Your task to perform on an android device: open sync settings in chrome Image 0: 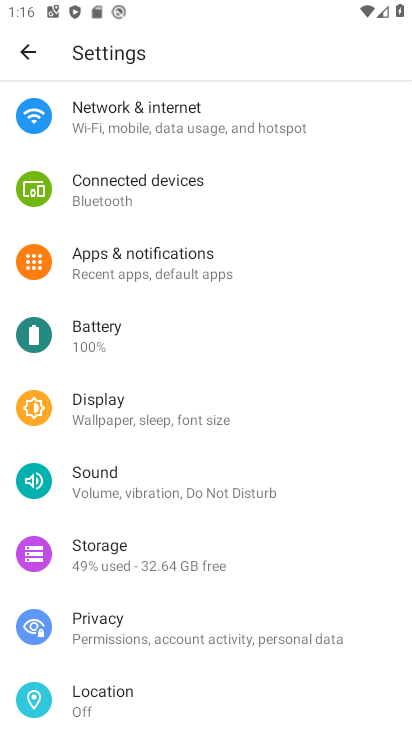
Step 0: press back button
Your task to perform on an android device: open sync settings in chrome Image 1: 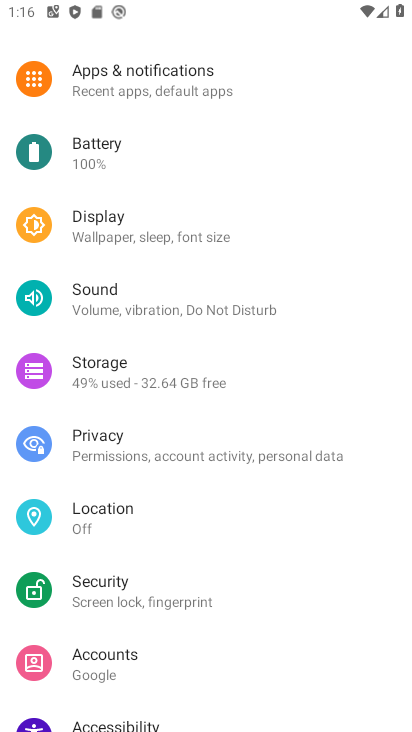
Step 1: press back button
Your task to perform on an android device: open sync settings in chrome Image 2: 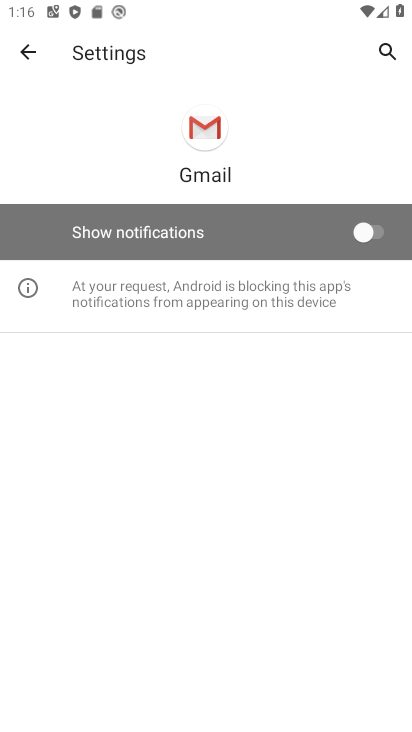
Step 2: press back button
Your task to perform on an android device: open sync settings in chrome Image 3: 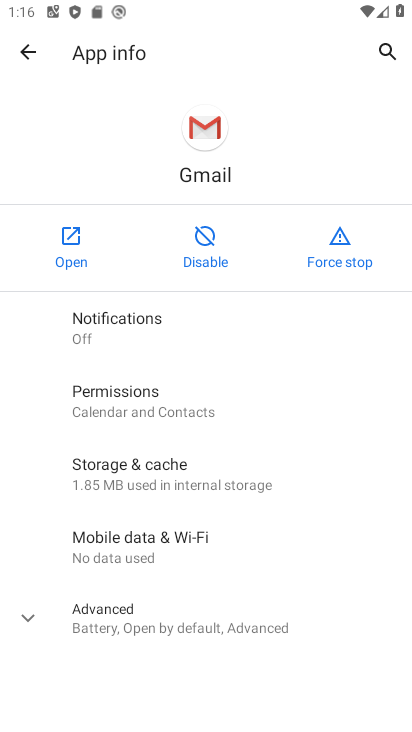
Step 3: press home button
Your task to perform on an android device: open sync settings in chrome Image 4: 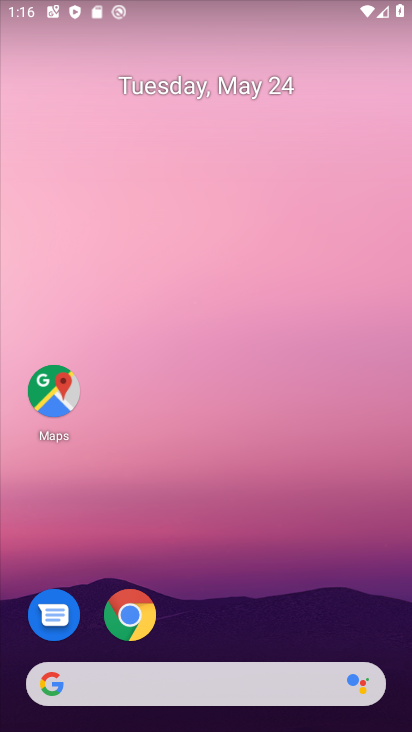
Step 4: click (143, 591)
Your task to perform on an android device: open sync settings in chrome Image 5: 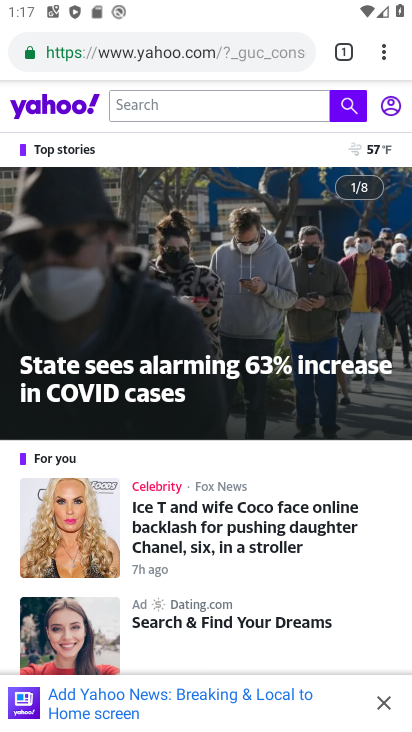
Step 5: drag from (384, 45) to (201, 629)
Your task to perform on an android device: open sync settings in chrome Image 6: 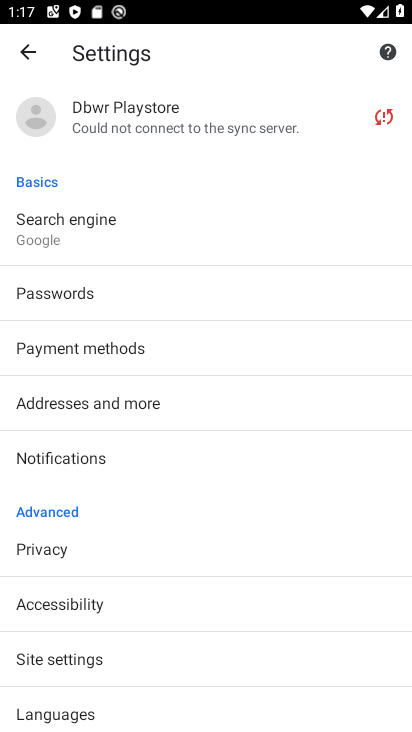
Step 6: click (154, 124)
Your task to perform on an android device: open sync settings in chrome Image 7: 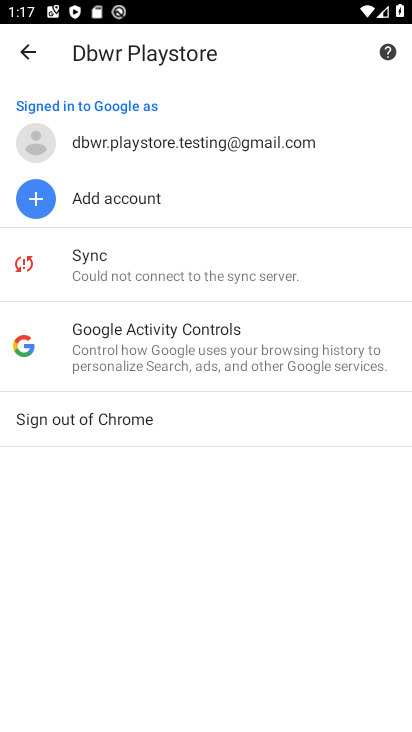
Step 7: task complete